Your task to perform on an android device: set an alarm Image 0: 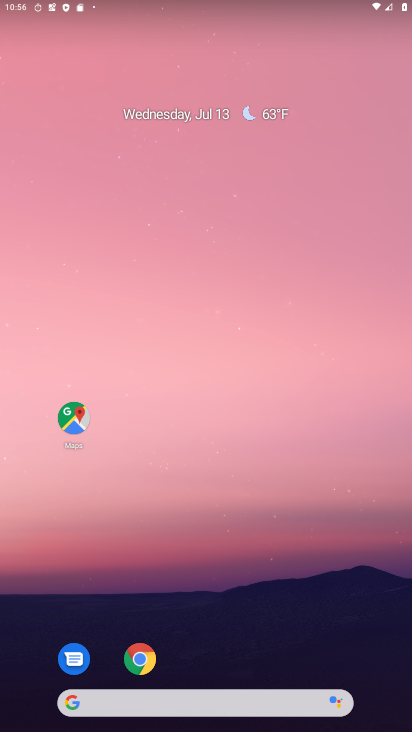
Step 0: drag from (349, 622) to (312, 114)
Your task to perform on an android device: set an alarm Image 1: 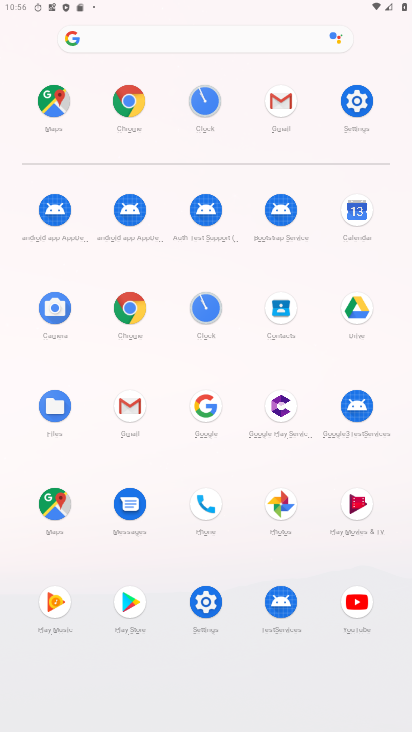
Step 1: click (209, 306)
Your task to perform on an android device: set an alarm Image 2: 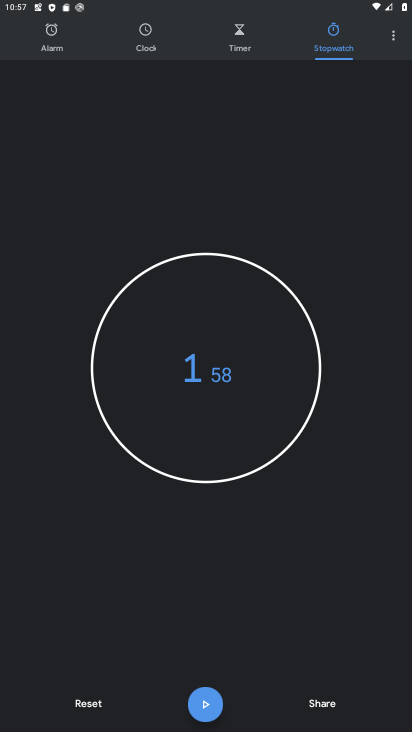
Step 2: click (64, 45)
Your task to perform on an android device: set an alarm Image 3: 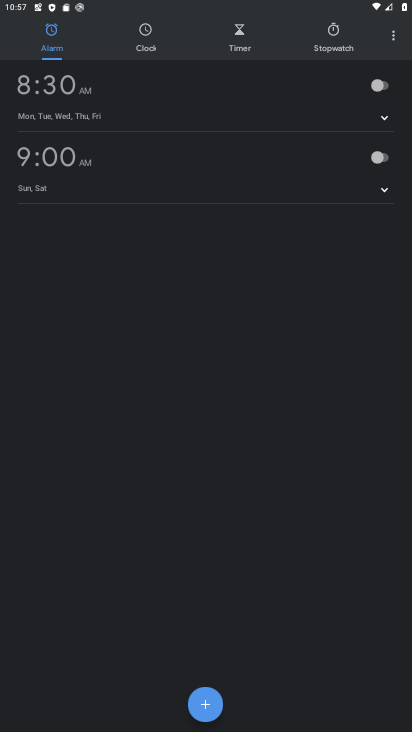
Step 3: click (205, 715)
Your task to perform on an android device: set an alarm Image 4: 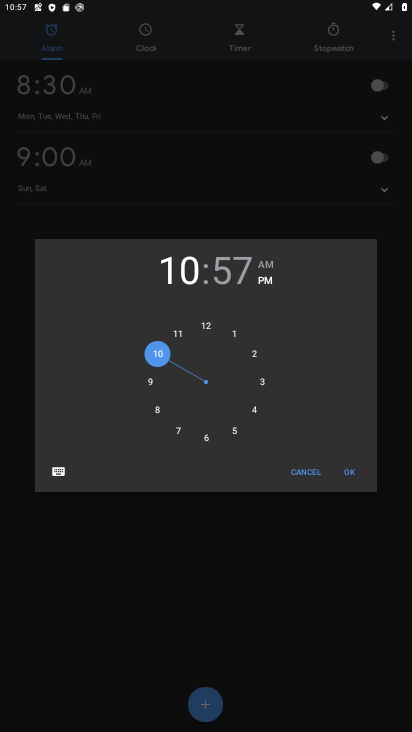
Step 4: click (350, 476)
Your task to perform on an android device: set an alarm Image 5: 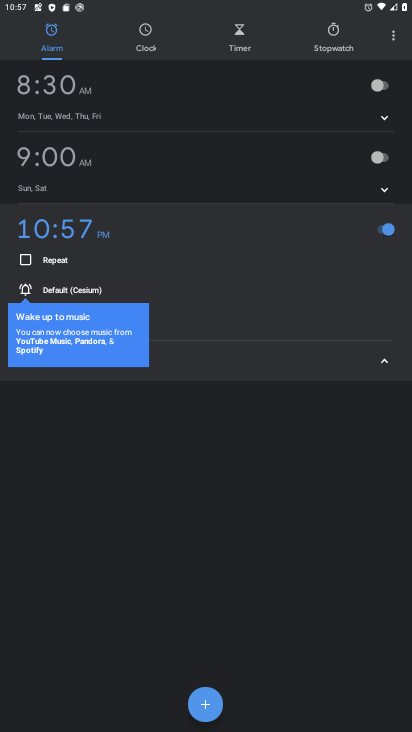
Step 5: task complete